Your task to perform on an android device: See recent photos Image 0: 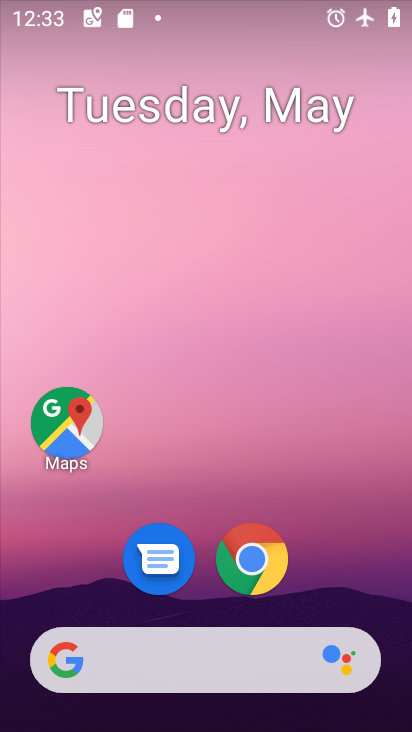
Step 0: drag from (370, 614) to (319, 108)
Your task to perform on an android device: See recent photos Image 1: 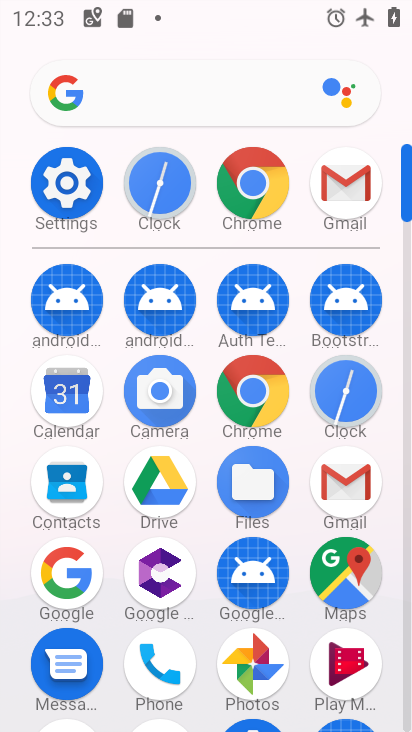
Step 1: click (248, 664)
Your task to perform on an android device: See recent photos Image 2: 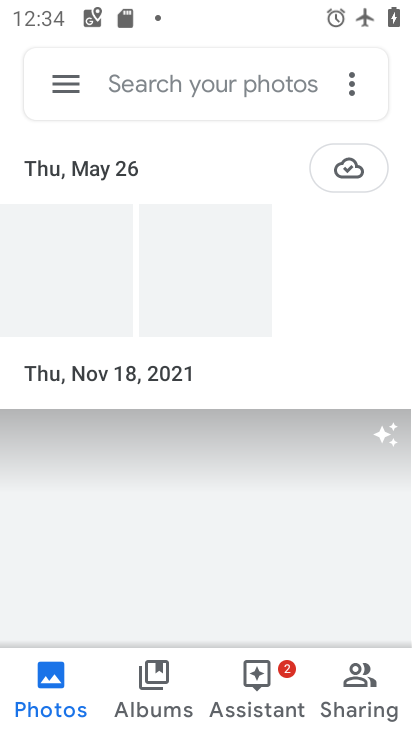
Step 2: task complete